Your task to perform on an android device: turn on improve location accuracy Image 0: 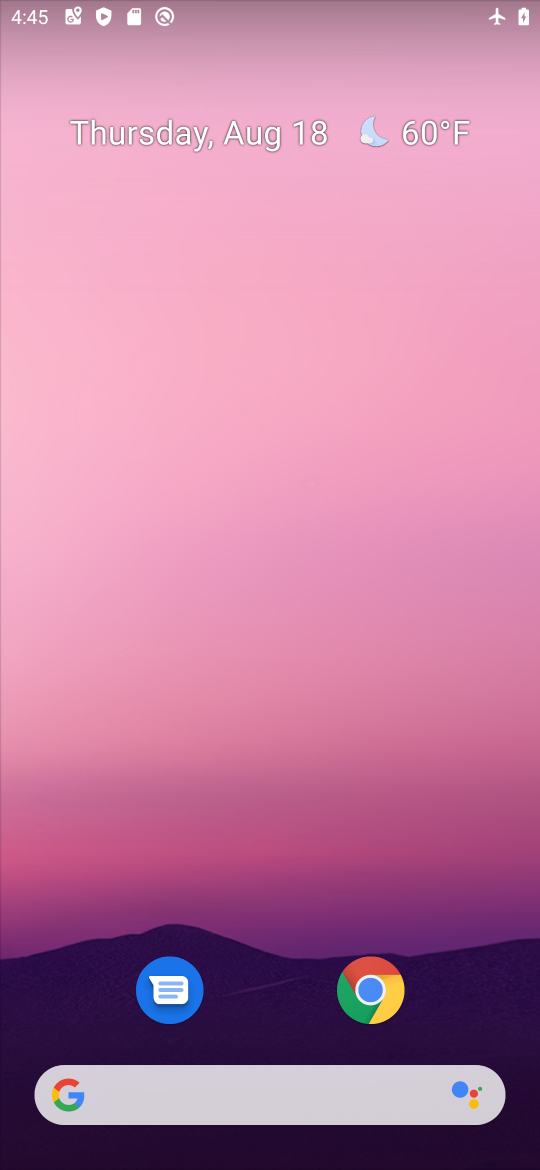
Step 0: drag from (312, 915) to (394, 228)
Your task to perform on an android device: turn on improve location accuracy Image 1: 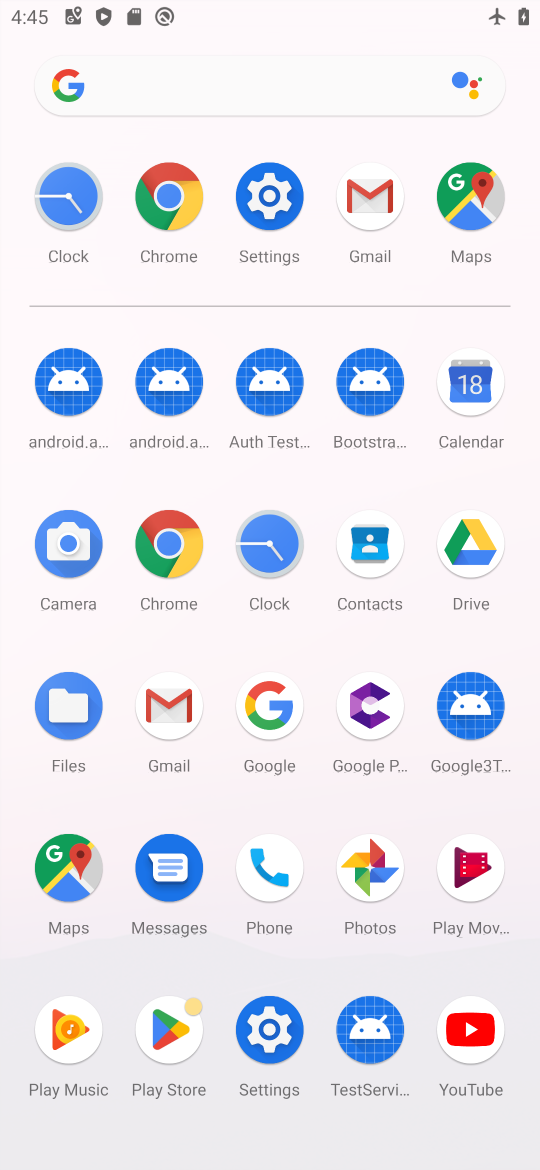
Step 1: click (281, 1030)
Your task to perform on an android device: turn on improve location accuracy Image 2: 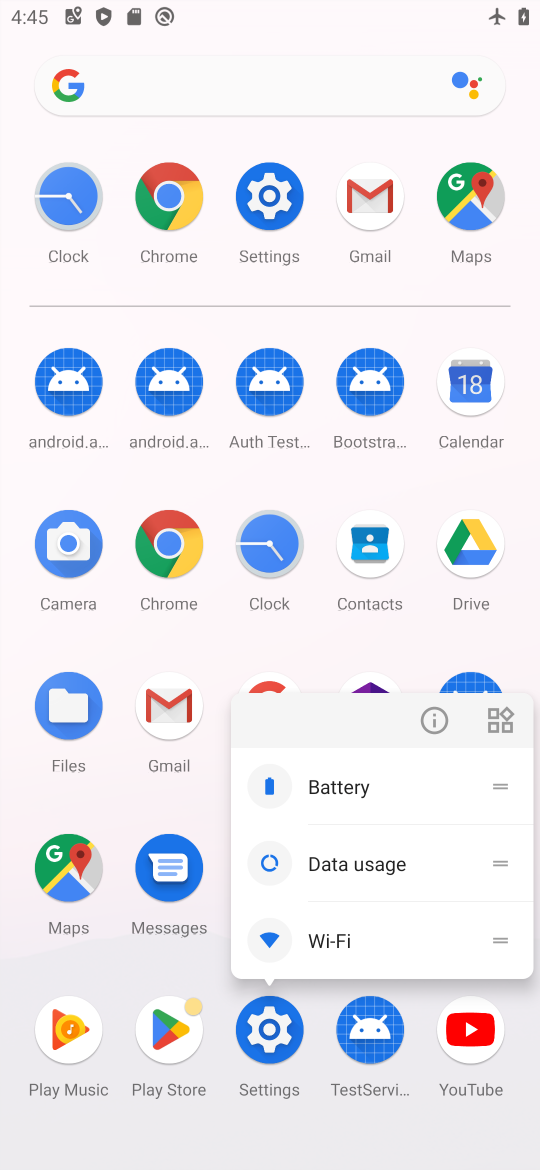
Step 2: click (287, 1011)
Your task to perform on an android device: turn on improve location accuracy Image 3: 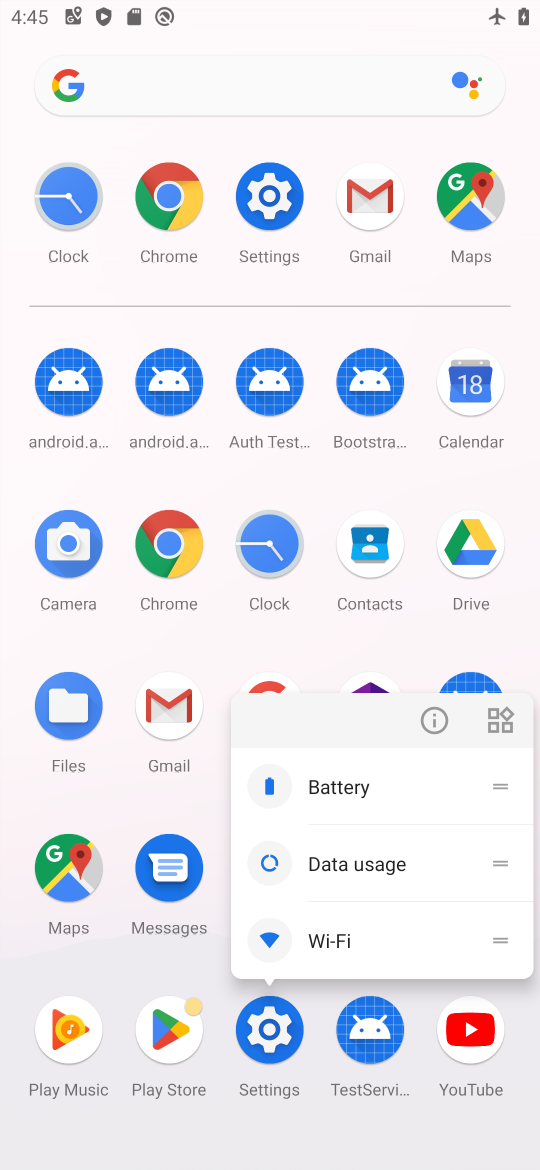
Step 3: click (275, 1018)
Your task to perform on an android device: turn on improve location accuracy Image 4: 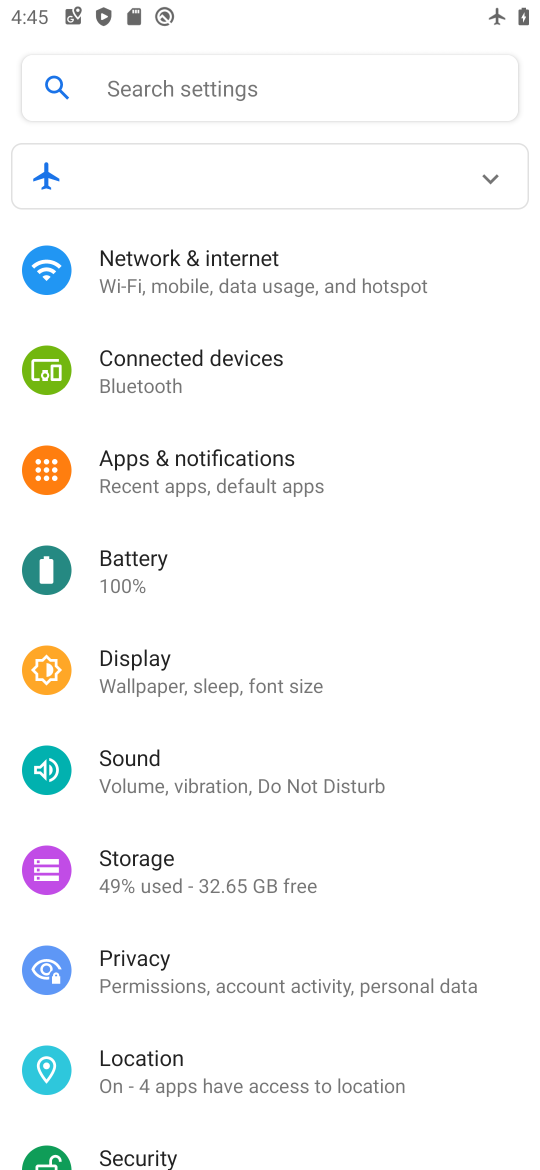
Step 4: drag from (145, 903) to (282, 348)
Your task to perform on an android device: turn on improve location accuracy Image 5: 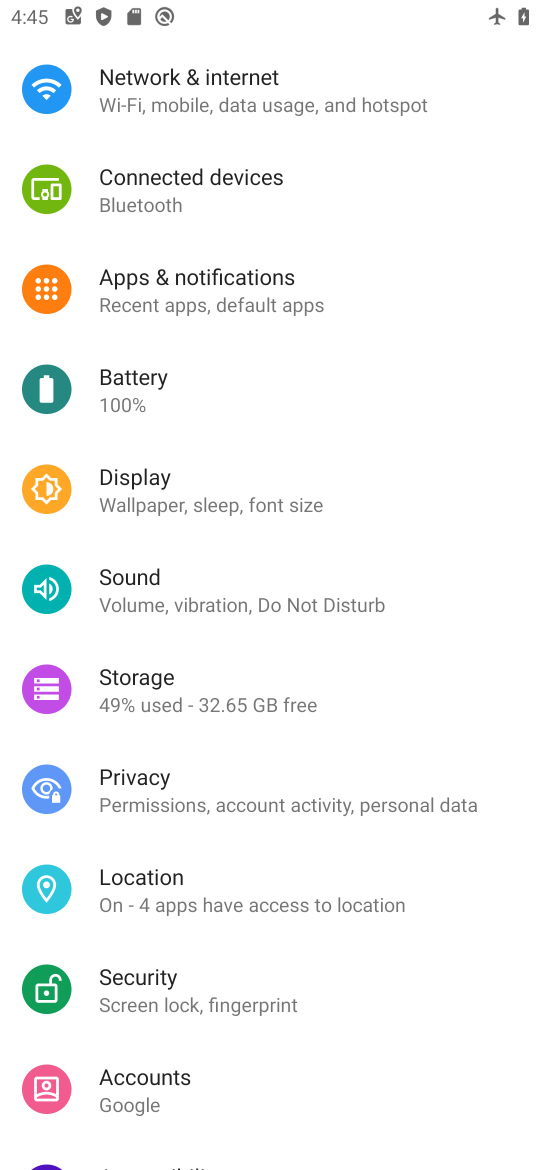
Step 5: click (124, 863)
Your task to perform on an android device: turn on improve location accuracy Image 6: 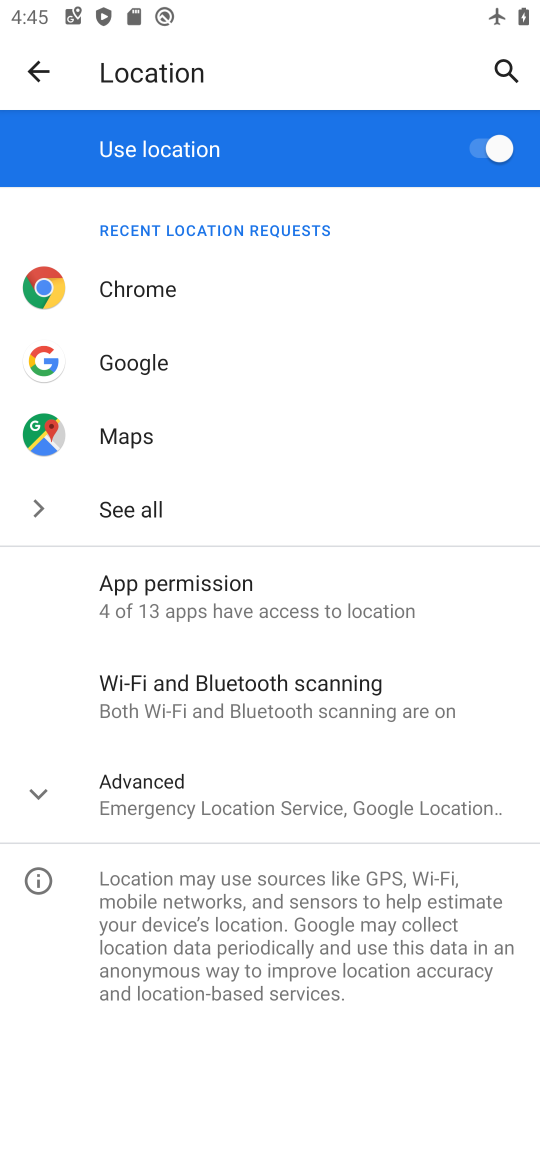
Step 6: click (154, 786)
Your task to perform on an android device: turn on improve location accuracy Image 7: 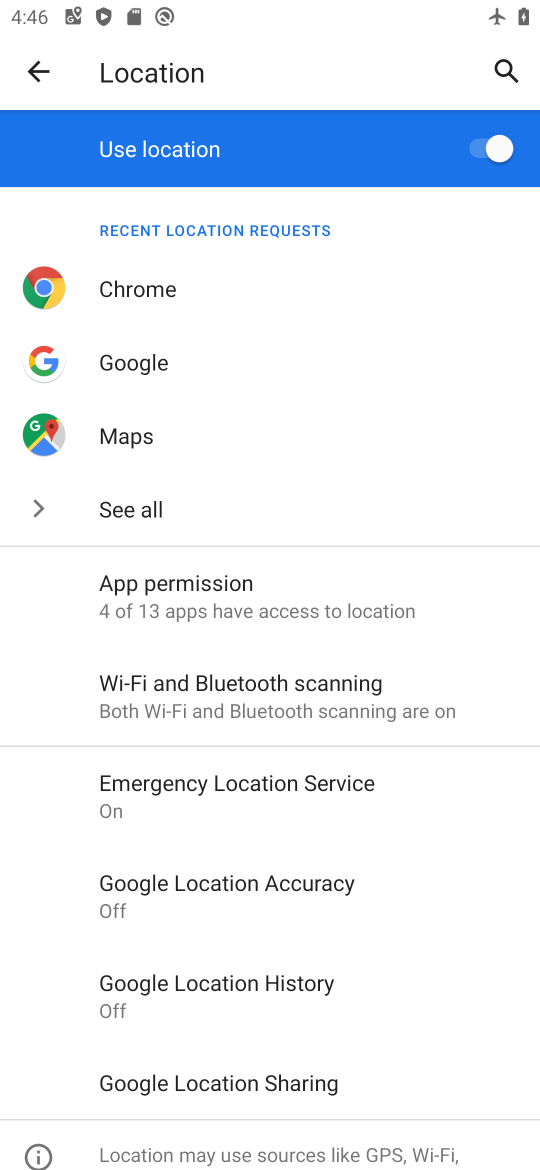
Step 7: click (318, 891)
Your task to perform on an android device: turn on improve location accuracy Image 8: 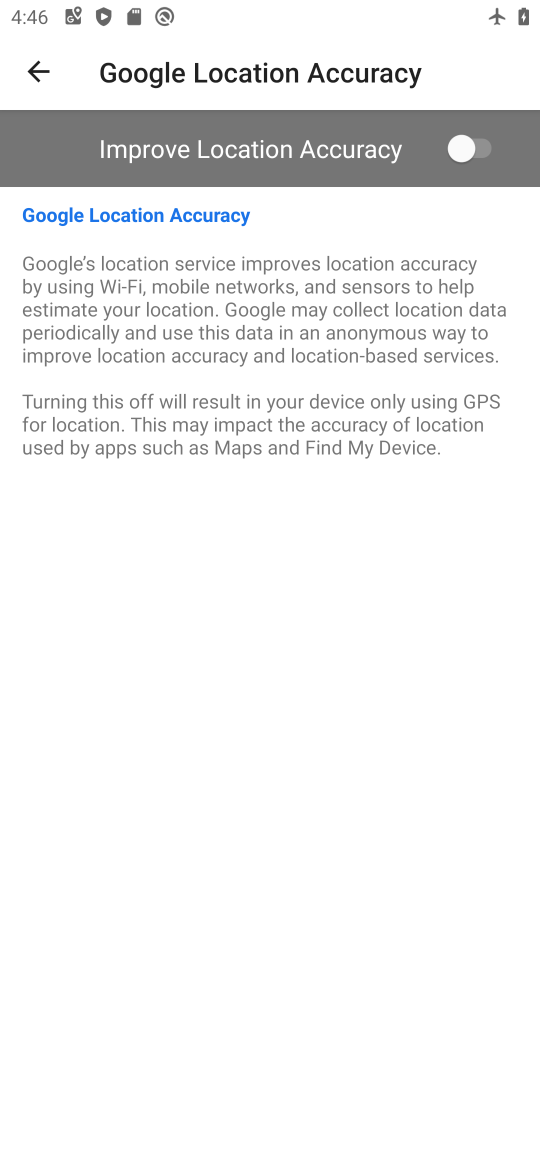
Step 8: click (419, 154)
Your task to perform on an android device: turn on improve location accuracy Image 9: 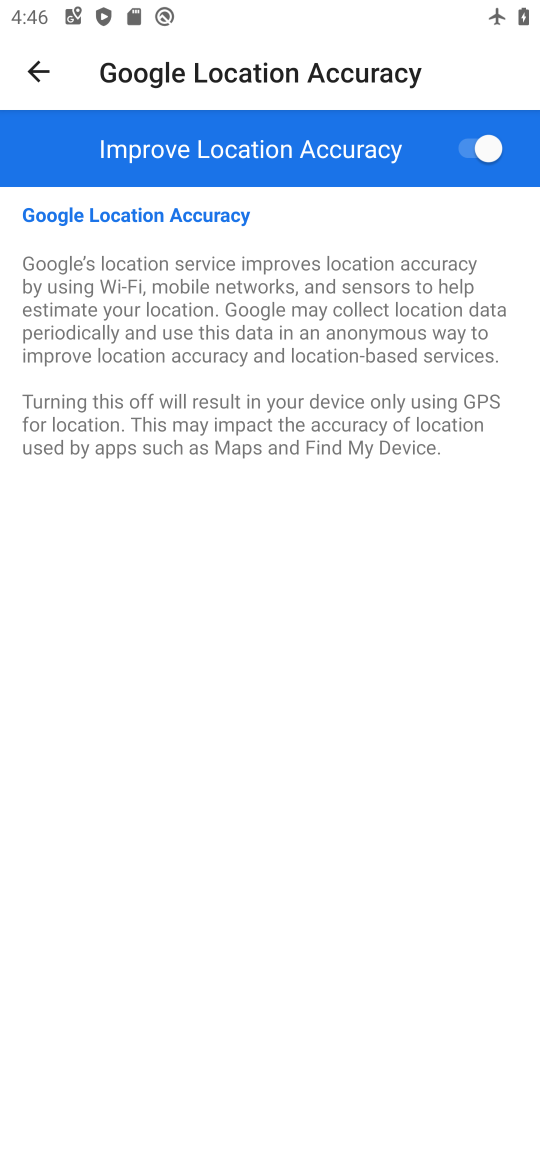
Step 9: task complete